Your task to perform on an android device: What's the weather? Image 0: 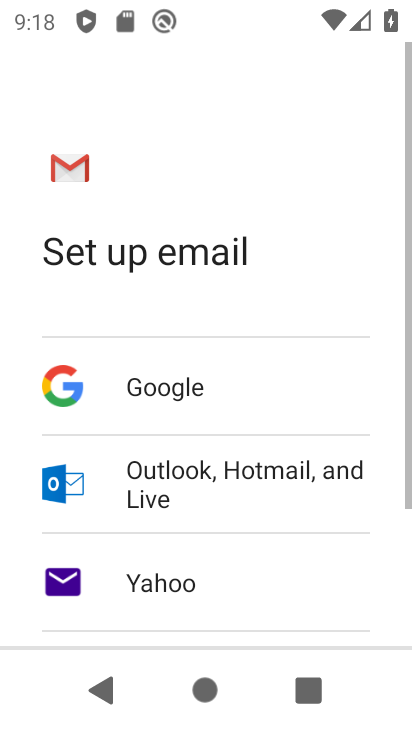
Step 0: press home button
Your task to perform on an android device: What's the weather? Image 1: 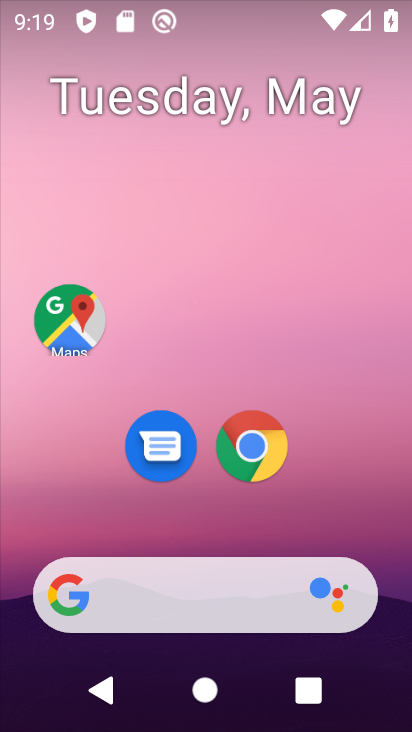
Step 1: drag from (224, 580) to (189, 188)
Your task to perform on an android device: What's the weather? Image 2: 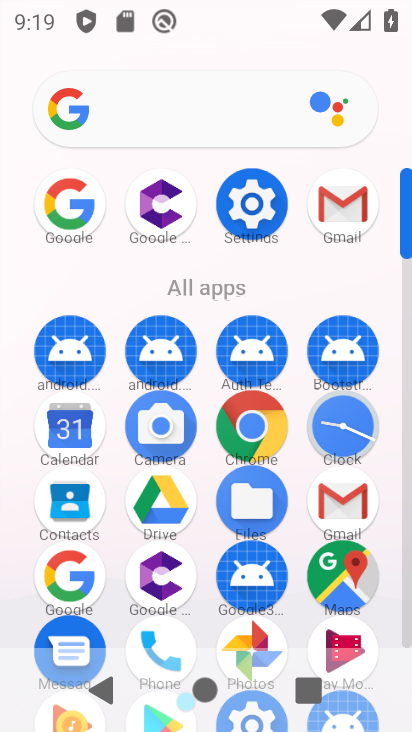
Step 2: click (72, 574)
Your task to perform on an android device: What's the weather? Image 3: 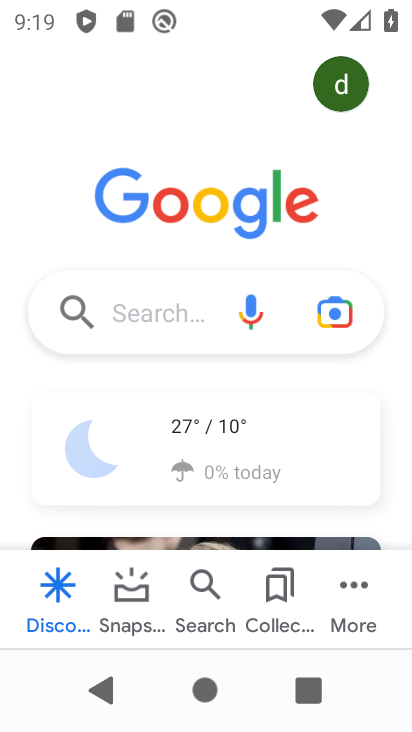
Step 3: click (98, 468)
Your task to perform on an android device: What's the weather? Image 4: 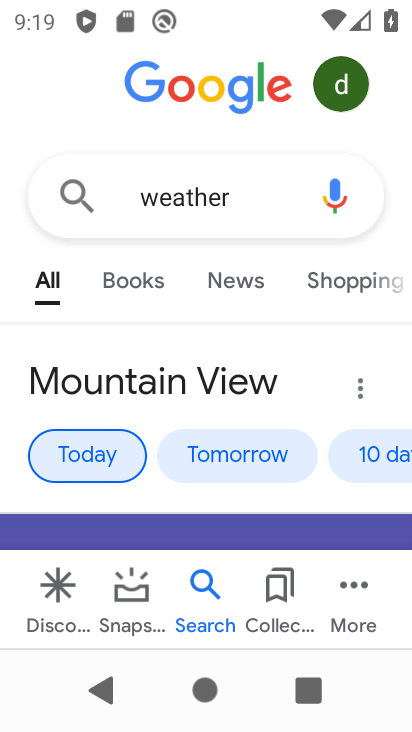
Step 4: task complete